Your task to perform on an android device: see creations saved in the google photos Image 0: 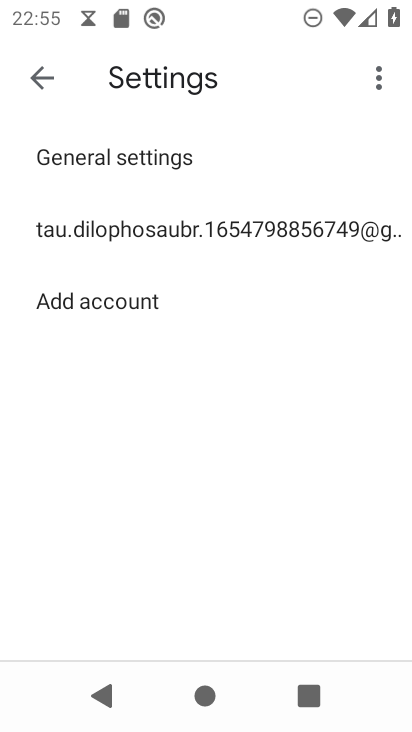
Step 0: press home button
Your task to perform on an android device: see creations saved in the google photos Image 1: 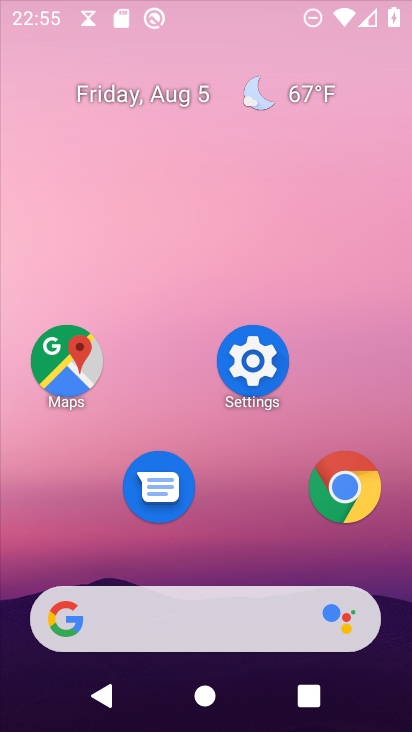
Step 1: drag from (204, 568) to (287, 6)
Your task to perform on an android device: see creations saved in the google photos Image 2: 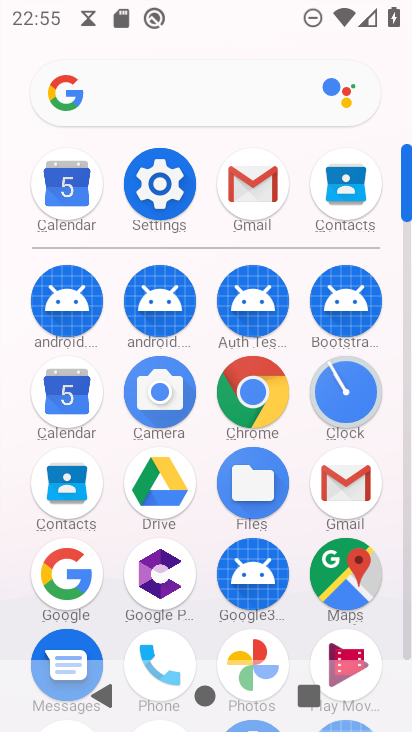
Step 2: drag from (209, 571) to (297, 240)
Your task to perform on an android device: see creations saved in the google photos Image 3: 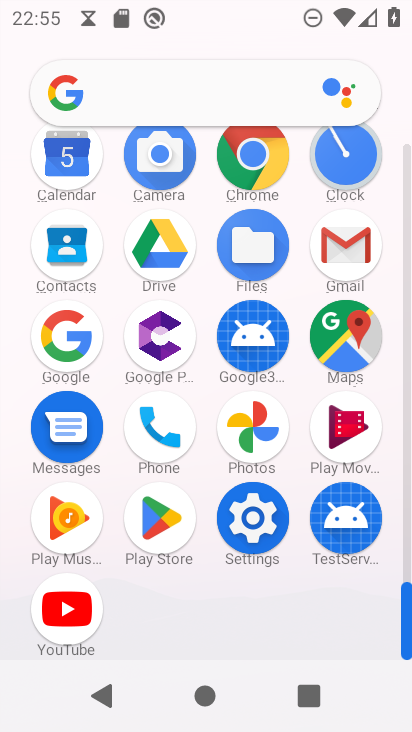
Step 3: click (252, 424)
Your task to perform on an android device: see creations saved in the google photos Image 4: 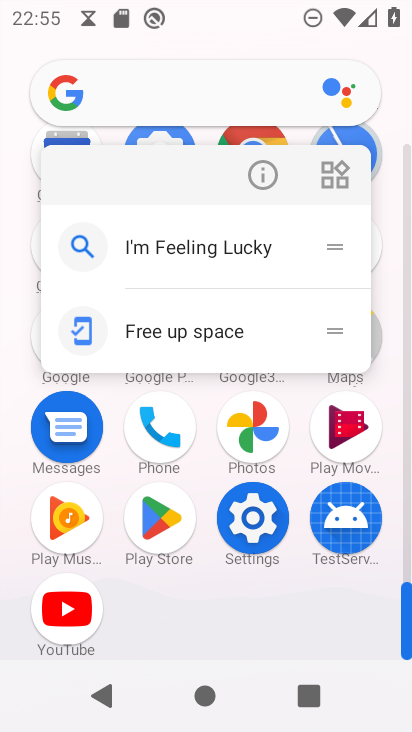
Step 4: click (252, 425)
Your task to perform on an android device: see creations saved in the google photos Image 5: 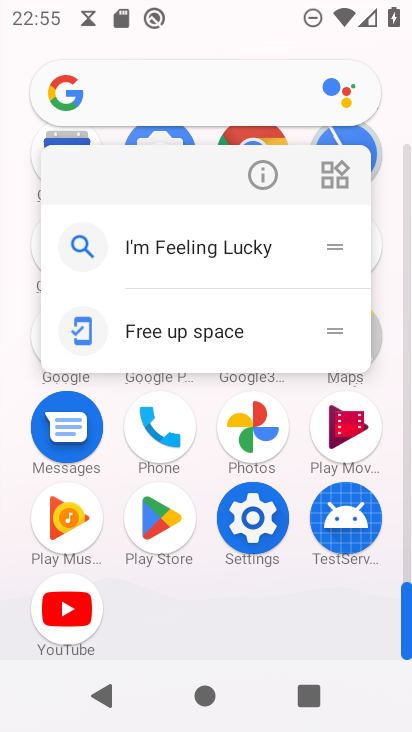
Step 5: click (252, 426)
Your task to perform on an android device: see creations saved in the google photos Image 6: 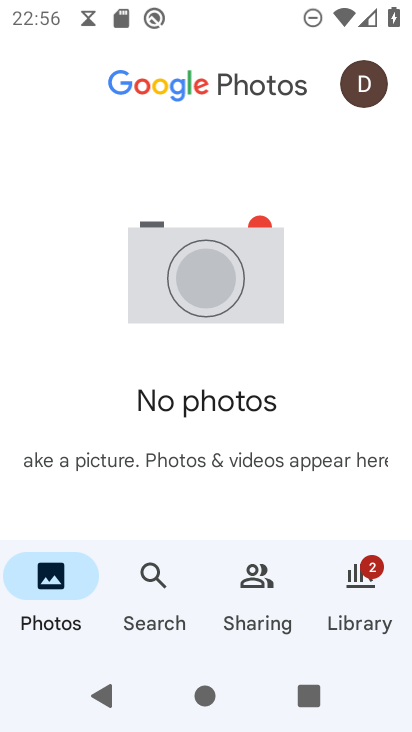
Step 6: click (154, 585)
Your task to perform on an android device: see creations saved in the google photos Image 7: 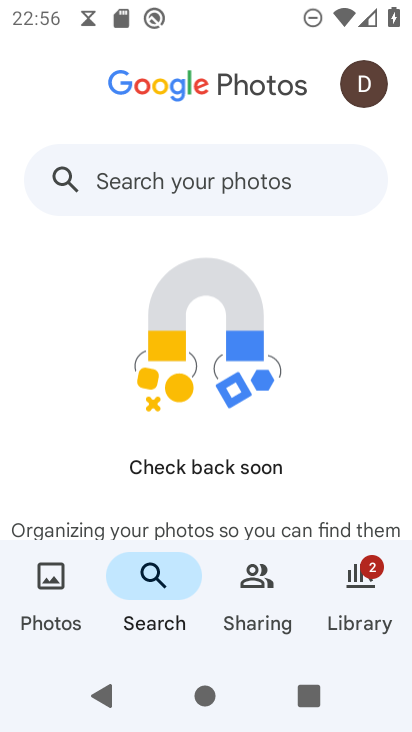
Step 7: click (154, 174)
Your task to perform on an android device: see creations saved in the google photos Image 8: 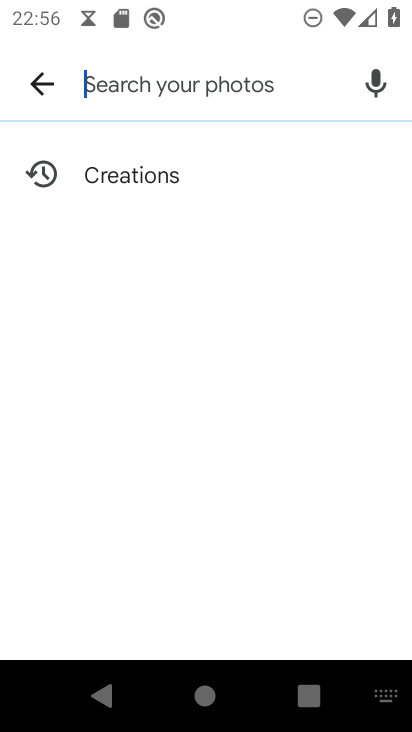
Step 8: click (136, 174)
Your task to perform on an android device: see creations saved in the google photos Image 9: 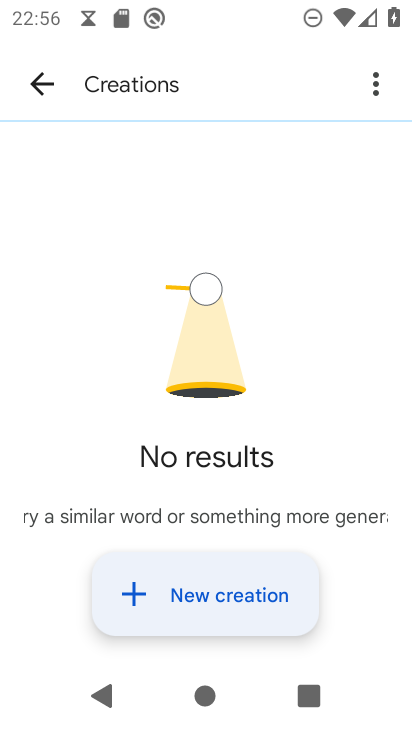
Step 9: task complete